Your task to perform on an android device: Show me popular videos on Youtube Image 0: 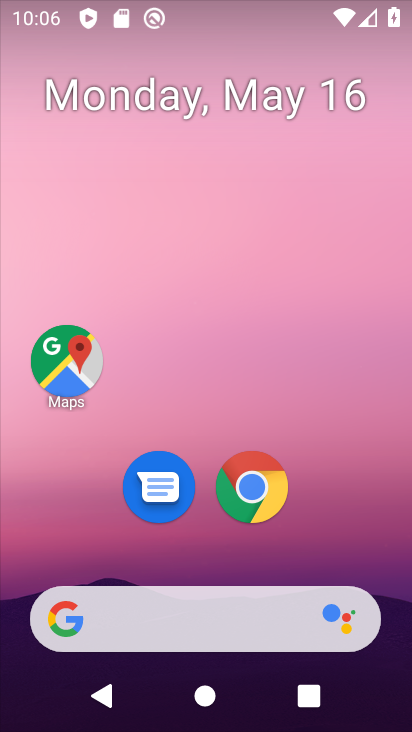
Step 0: click (298, 75)
Your task to perform on an android device: Show me popular videos on Youtube Image 1: 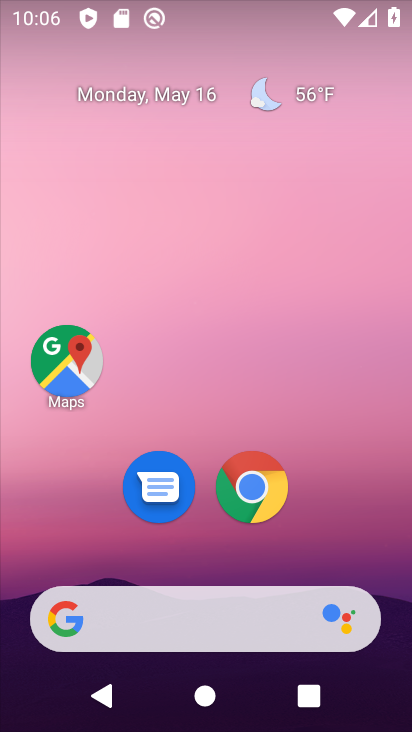
Step 1: drag from (277, 550) to (277, 176)
Your task to perform on an android device: Show me popular videos on Youtube Image 2: 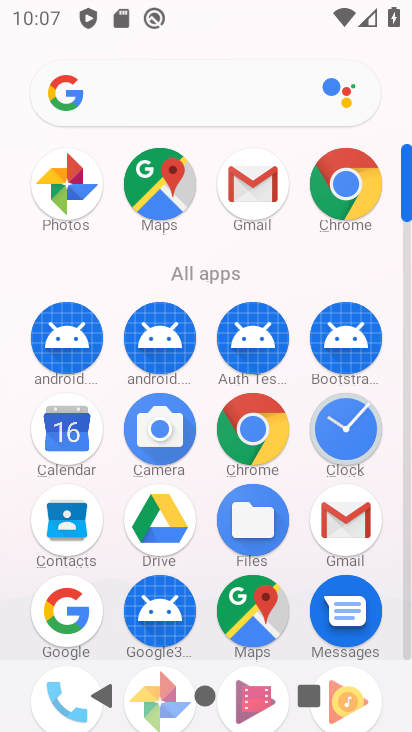
Step 2: drag from (290, 630) to (333, 317)
Your task to perform on an android device: Show me popular videos on Youtube Image 3: 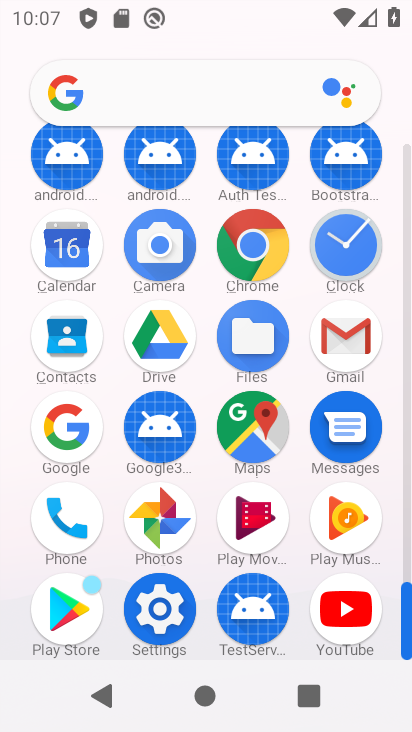
Step 3: click (261, 532)
Your task to perform on an android device: Show me popular videos on Youtube Image 4: 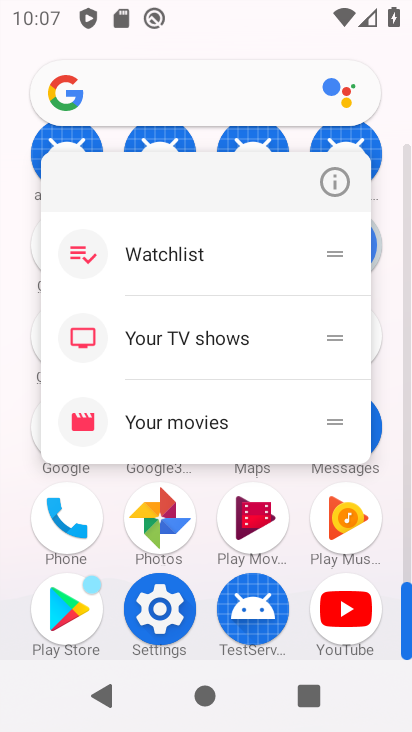
Step 4: click (256, 530)
Your task to perform on an android device: Show me popular videos on Youtube Image 5: 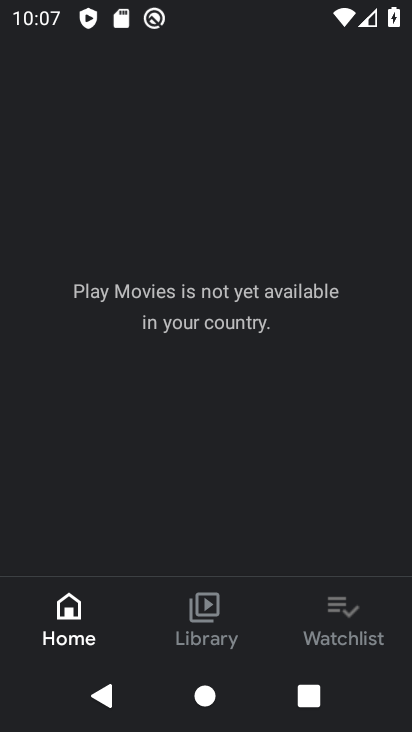
Step 5: press back button
Your task to perform on an android device: Show me popular videos on Youtube Image 6: 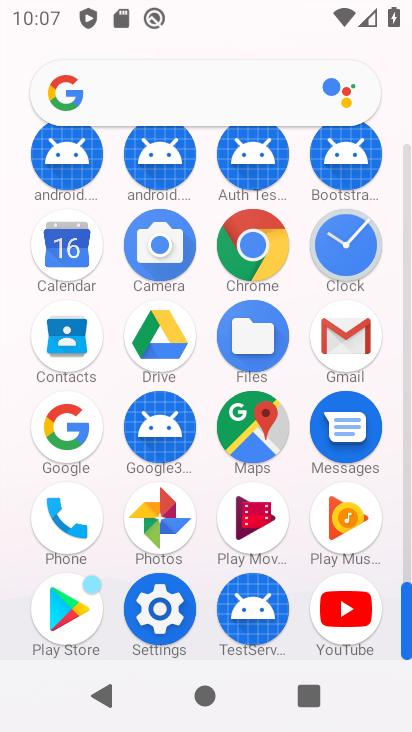
Step 6: click (345, 604)
Your task to perform on an android device: Show me popular videos on Youtube Image 7: 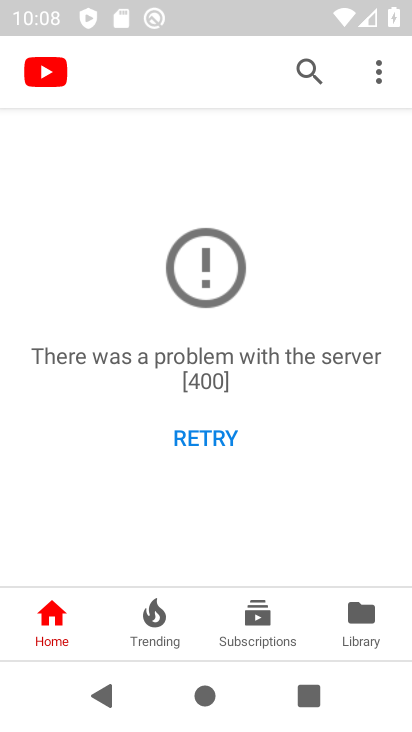
Step 7: click (356, 620)
Your task to perform on an android device: Show me popular videos on Youtube Image 8: 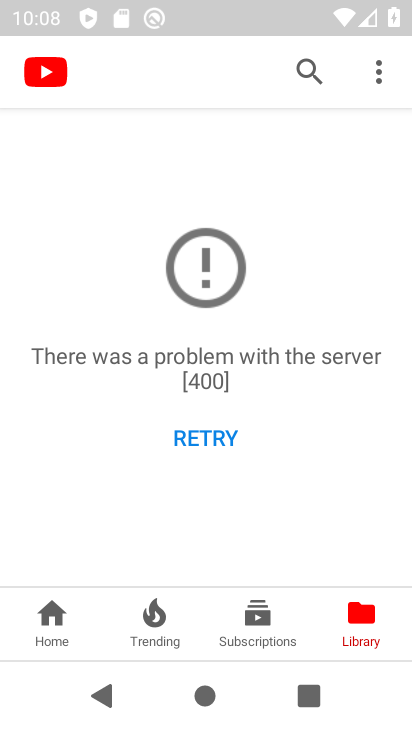
Step 8: task complete